Your task to perform on an android device: Open settings Image 0: 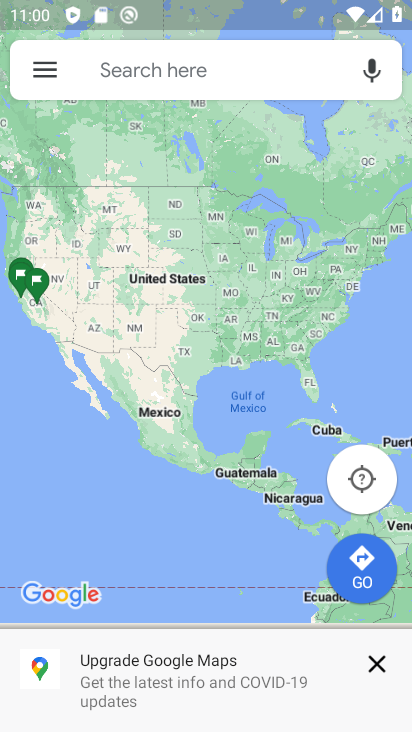
Step 0: press home button
Your task to perform on an android device: Open settings Image 1: 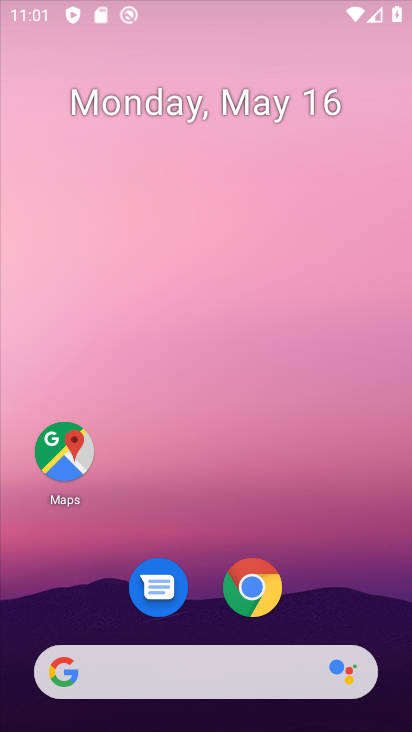
Step 1: drag from (369, 618) to (232, 100)
Your task to perform on an android device: Open settings Image 2: 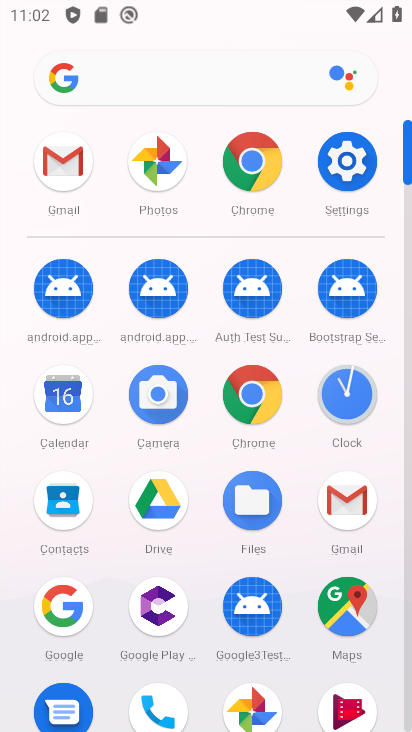
Step 2: click (343, 161)
Your task to perform on an android device: Open settings Image 3: 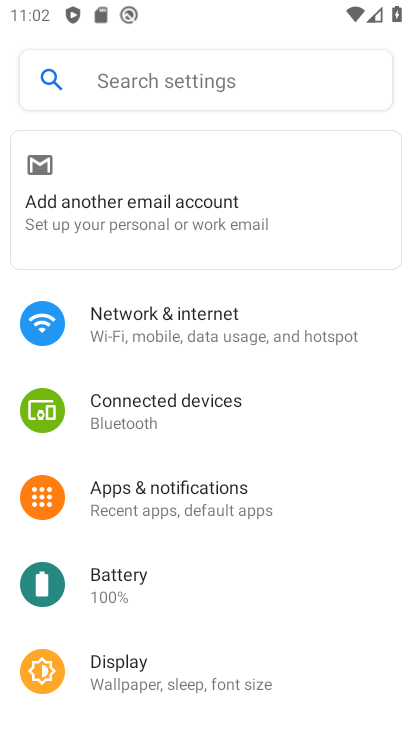
Step 3: task complete